Your task to perform on an android device: check out phone information Image 0: 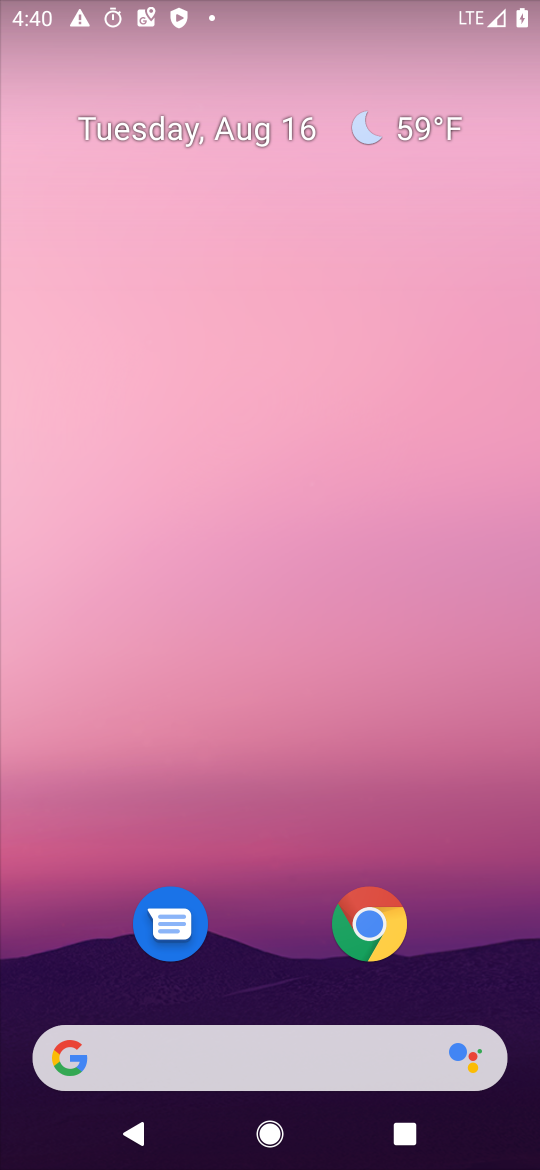
Step 0: drag from (307, 857) to (338, 335)
Your task to perform on an android device: check out phone information Image 1: 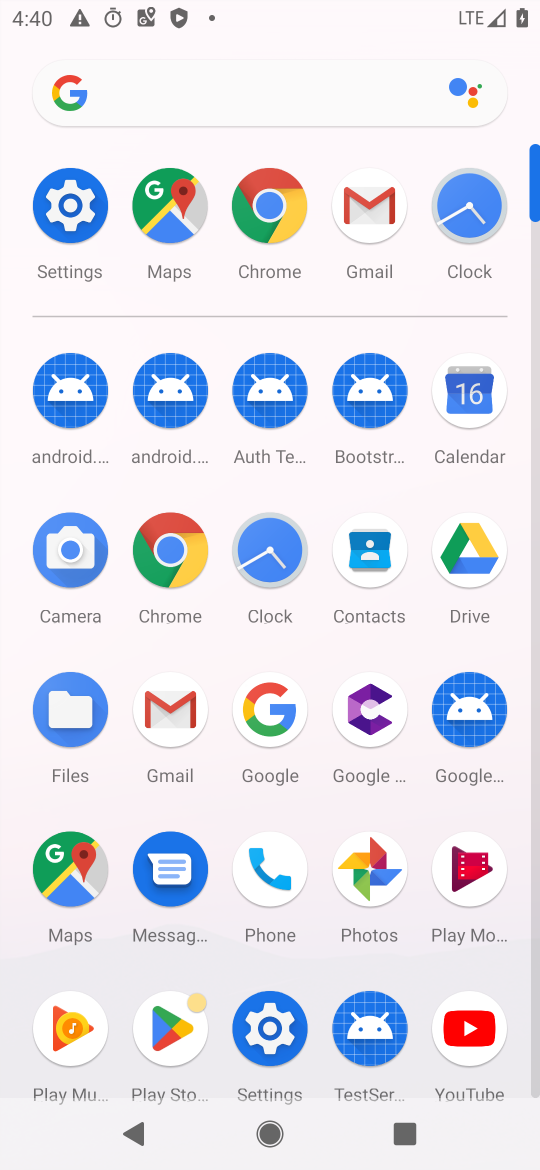
Step 1: click (69, 160)
Your task to perform on an android device: check out phone information Image 2: 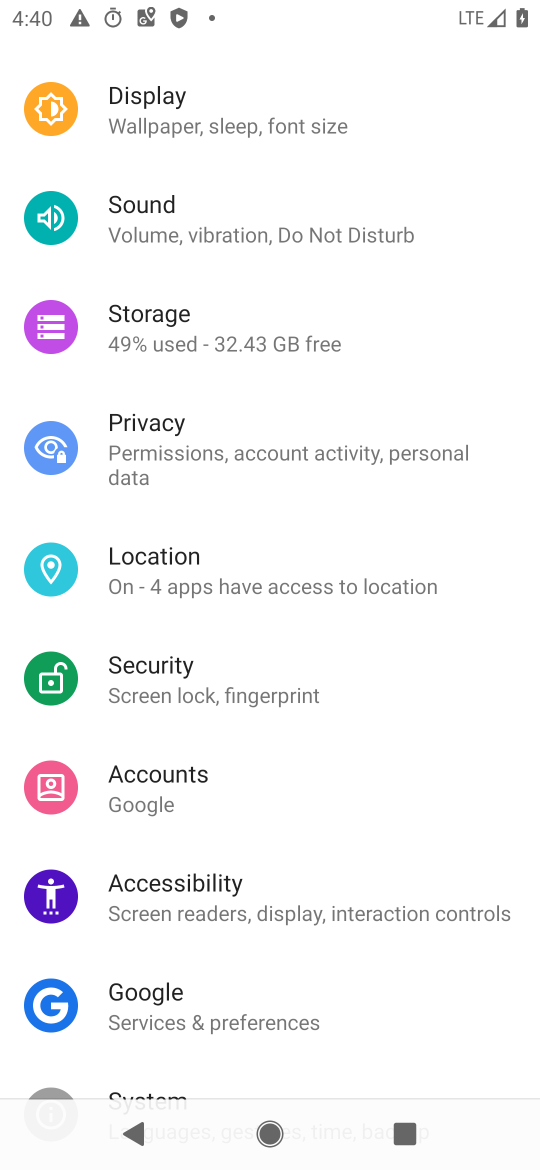
Step 2: drag from (133, 1068) to (331, 250)
Your task to perform on an android device: check out phone information Image 3: 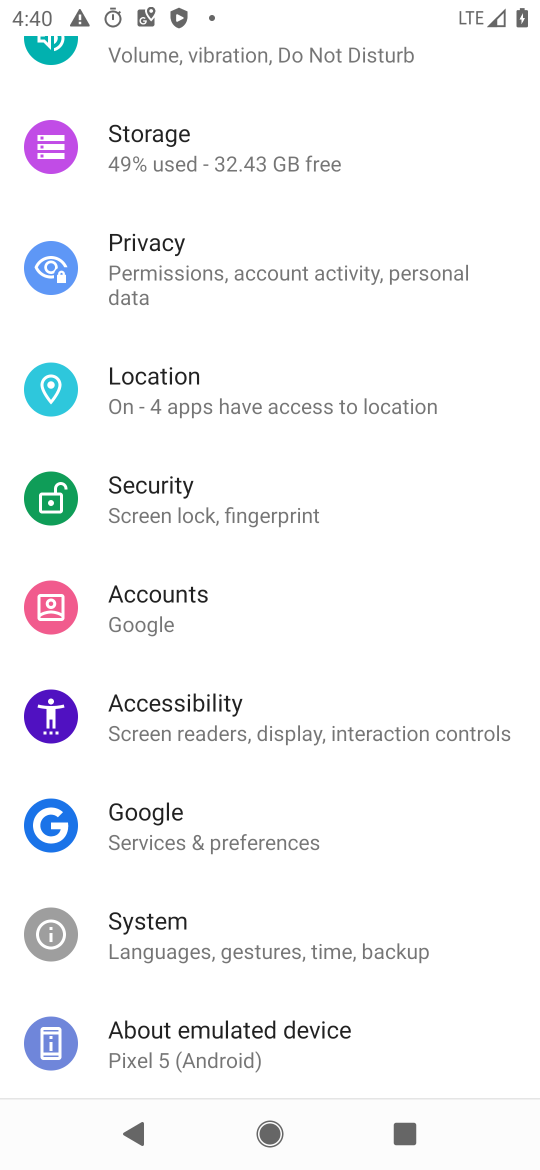
Step 3: drag from (257, 1023) to (462, 154)
Your task to perform on an android device: check out phone information Image 4: 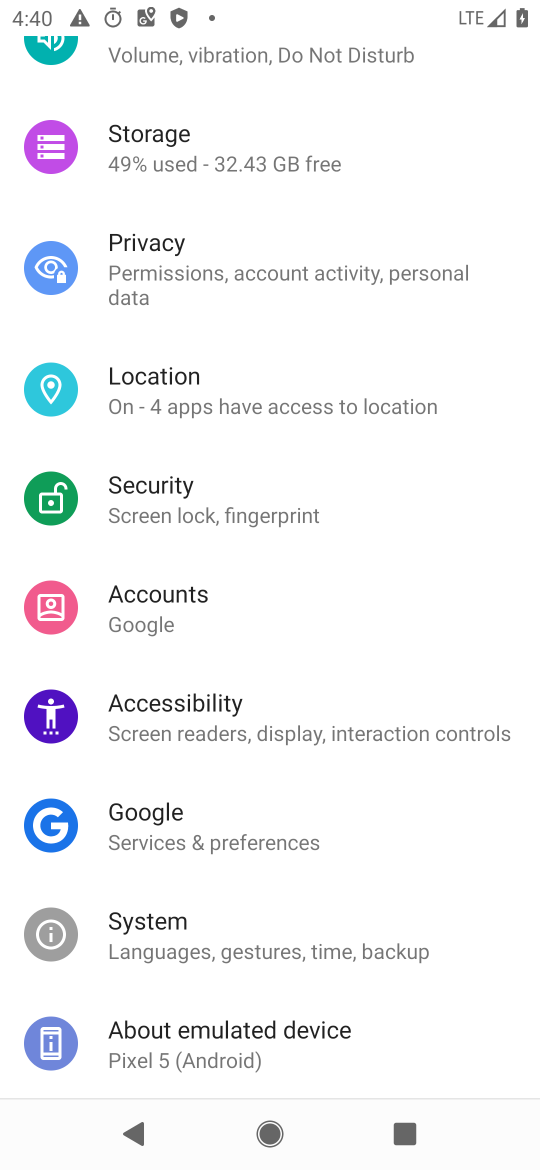
Step 4: click (169, 1048)
Your task to perform on an android device: check out phone information Image 5: 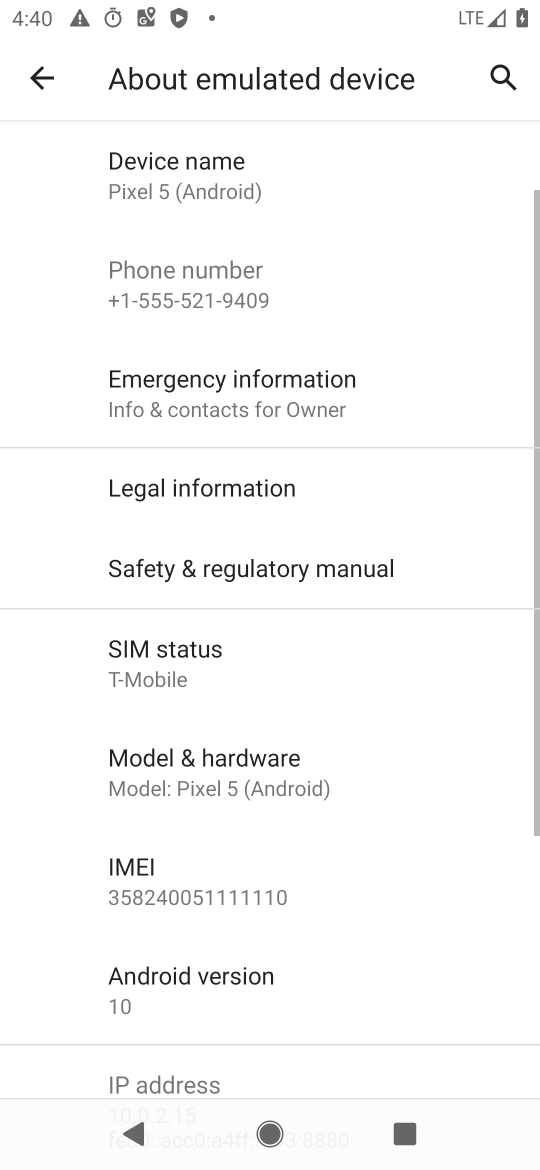
Step 5: task complete